Your task to perform on an android device: open app "Roku - Official Remote Control" (install if not already installed) and enter user name: "autumnal@gmail.com" and password: "stuffing" Image 0: 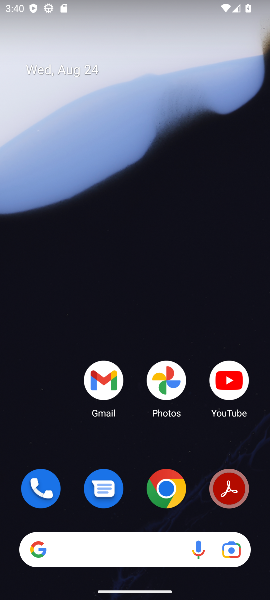
Step 0: drag from (133, 515) to (138, 117)
Your task to perform on an android device: open app "Roku - Official Remote Control" (install if not already installed) and enter user name: "autumnal@gmail.com" and password: "stuffing" Image 1: 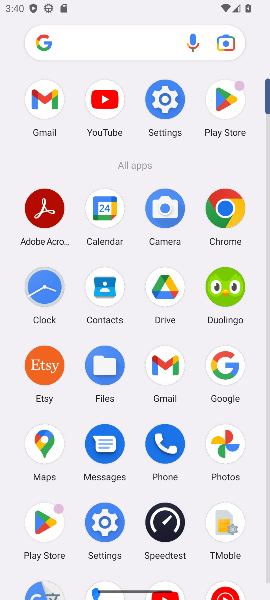
Step 1: click (227, 106)
Your task to perform on an android device: open app "Roku - Official Remote Control" (install if not already installed) and enter user name: "autumnal@gmail.com" and password: "stuffing" Image 2: 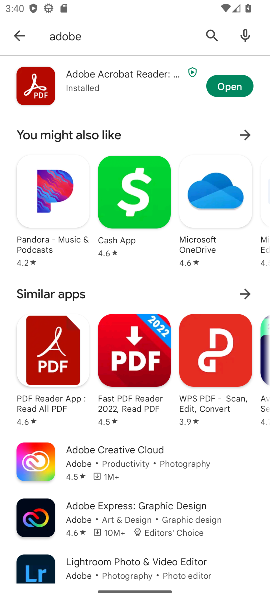
Step 2: click (218, 35)
Your task to perform on an android device: open app "Roku - Official Remote Control" (install if not already installed) and enter user name: "autumnal@gmail.com" and password: "stuffing" Image 3: 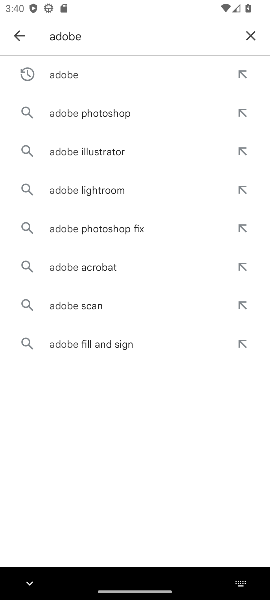
Step 3: click (254, 41)
Your task to perform on an android device: open app "Roku - Official Remote Control" (install if not already installed) and enter user name: "autumnal@gmail.com" and password: "stuffing" Image 4: 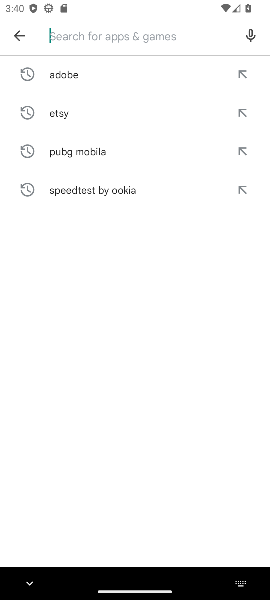
Step 4: type "roku"
Your task to perform on an android device: open app "Roku - Official Remote Control" (install if not already installed) and enter user name: "autumnal@gmail.com" and password: "stuffing" Image 5: 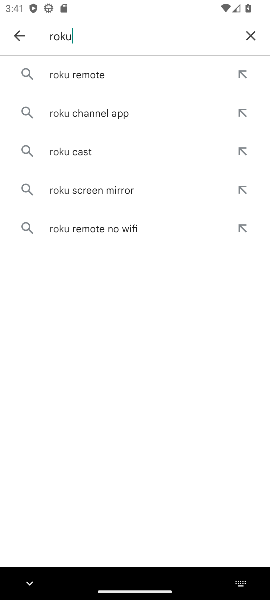
Step 5: click (101, 79)
Your task to perform on an android device: open app "Roku - Official Remote Control" (install if not already installed) and enter user name: "autumnal@gmail.com" and password: "stuffing" Image 6: 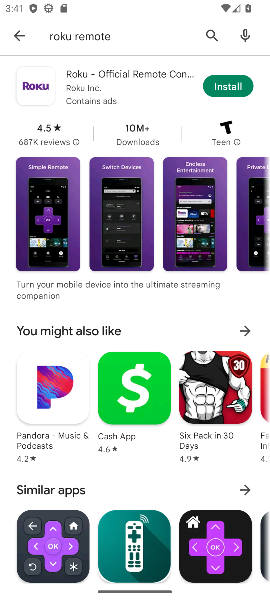
Step 6: click (211, 85)
Your task to perform on an android device: open app "Roku - Official Remote Control" (install if not already installed) and enter user name: "autumnal@gmail.com" and password: "stuffing" Image 7: 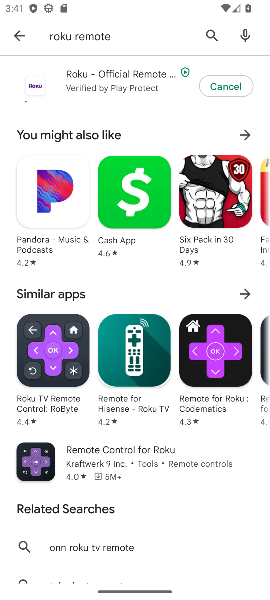
Step 7: task complete